Your task to perform on an android device: open chrome privacy settings Image 0: 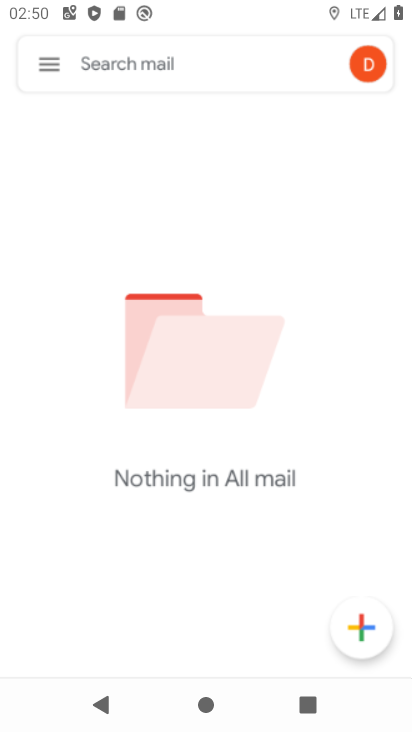
Step 0: drag from (242, 571) to (385, 140)
Your task to perform on an android device: open chrome privacy settings Image 1: 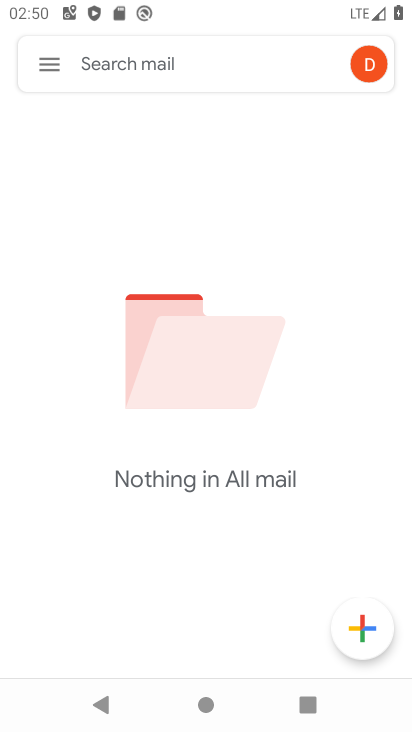
Step 1: press home button
Your task to perform on an android device: open chrome privacy settings Image 2: 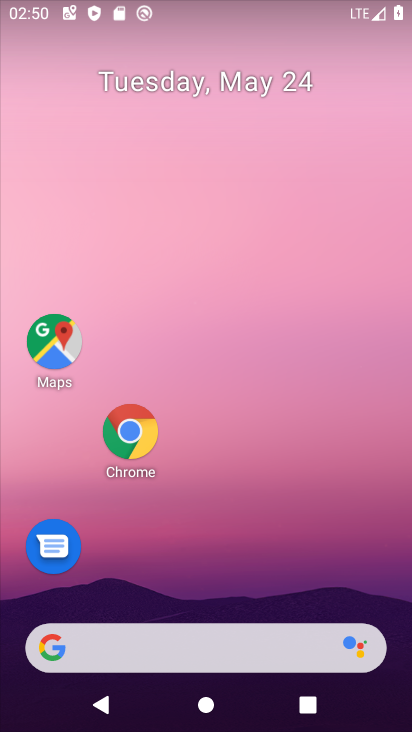
Step 2: drag from (178, 575) to (226, 297)
Your task to perform on an android device: open chrome privacy settings Image 3: 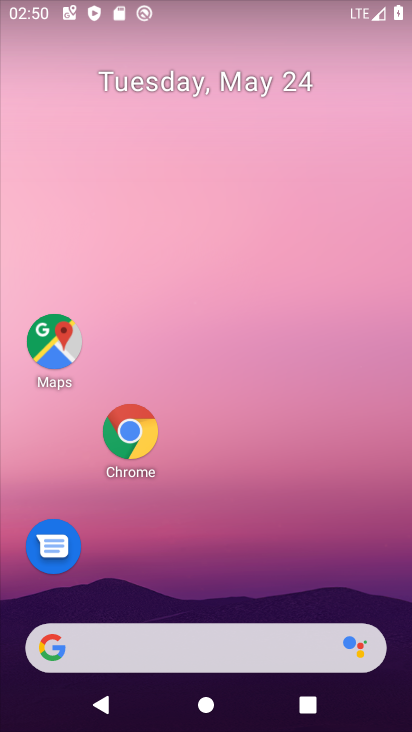
Step 3: drag from (204, 595) to (232, 223)
Your task to perform on an android device: open chrome privacy settings Image 4: 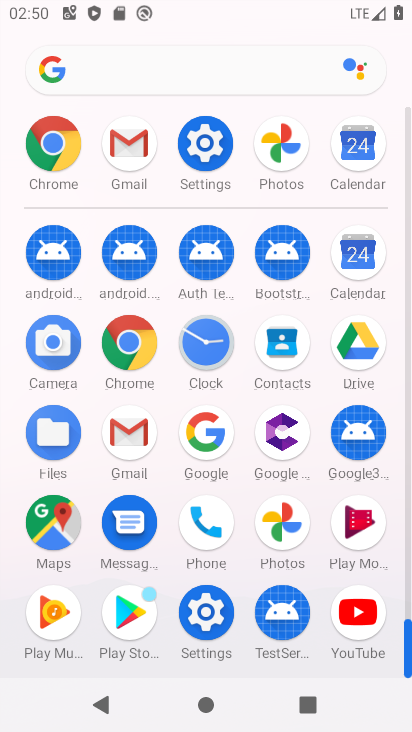
Step 4: click (125, 352)
Your task to perform on an android device: open chrome privacy settings Image 5: 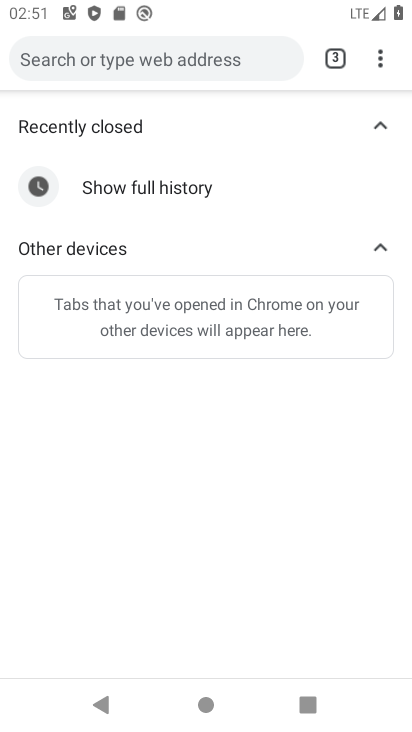
Step 5: click (375, 50)
Your task to perform on an android device: open chrome privacy settings Image 6: 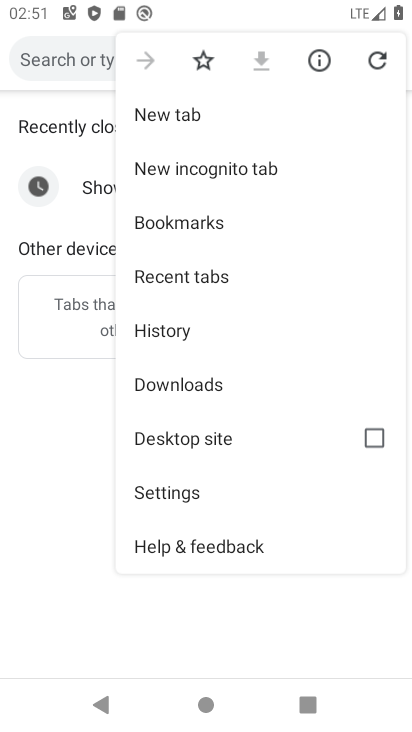
Step 6: click (182, 486)
Your task to perform on an android device: open chrome privacy settings Image 7: 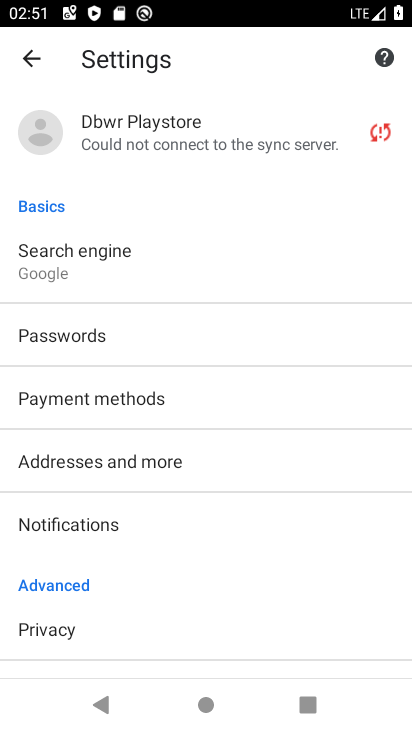
Step 7: click (87, 641)
Your task to perform on an android device: open chrome privacy settings Image 8: 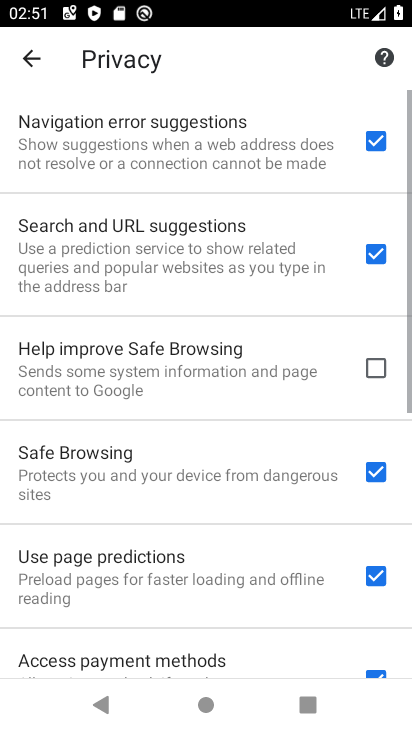
Step 8: task complete